Your task to perform on an android device: check android version Image 0: 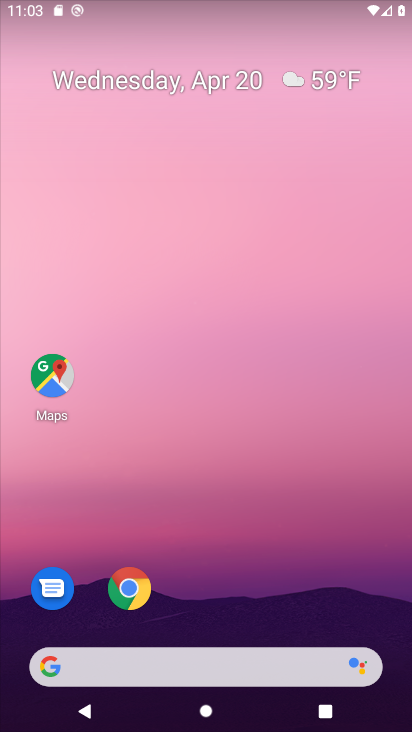
Step 0: drag from (394, 644) to (307, 211)
Your task to perform on an android device: check android version Image 1: 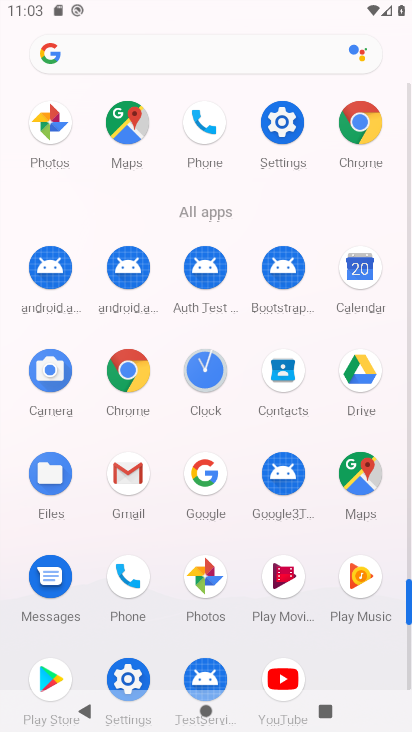
Step 1: click (406, 671)
Your task to perform on an android device: check android version Image 2: 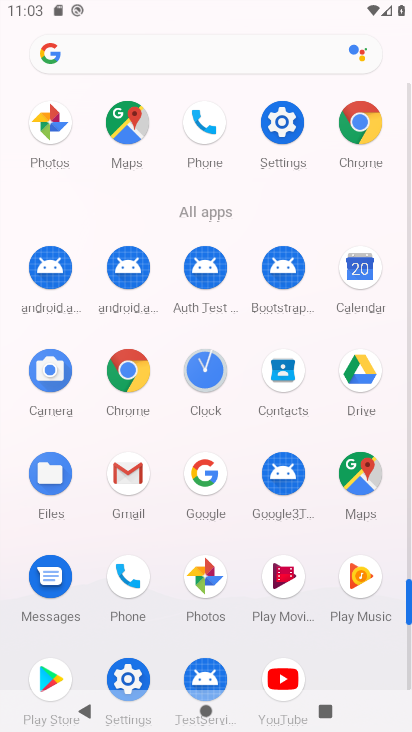
Step 2: click (406, 671)
Your task to perform on an android device: check android version Image 3: 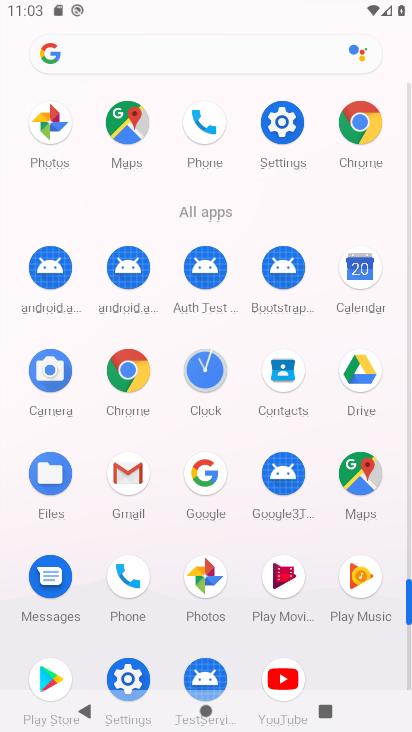
Step 3: click (408, 652)
Your task to perform on an android device: check android version Image 4: 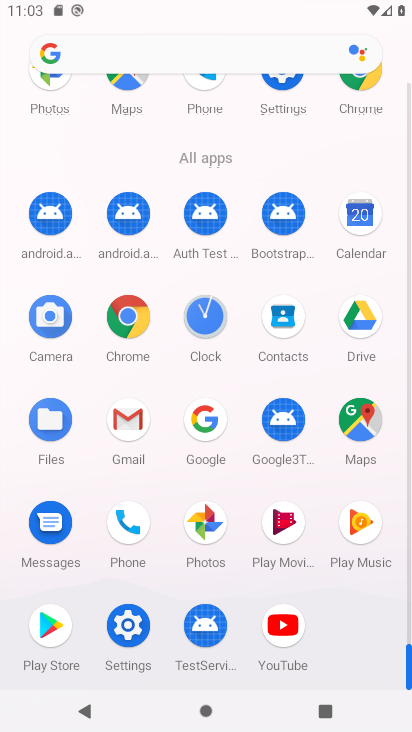
Step 4: click (130, 628)
Your task to perform on an android device: check android version Image 5: 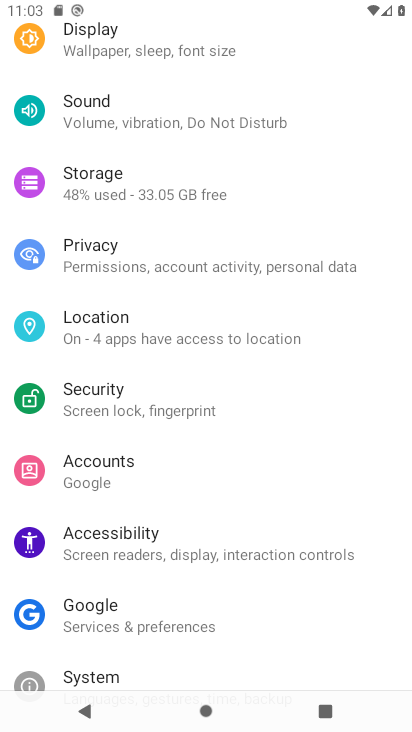
Step 5: drag from (220, 584) to (208, 371)
Your task to perform on an android device: check android version Image 6: 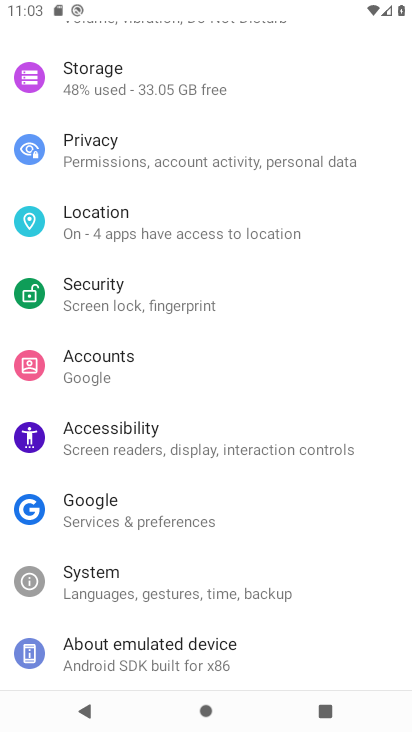
Step 6: drag from (229, 552) to (199, 330)
Your task to perform on an android device: check android version Image 7: 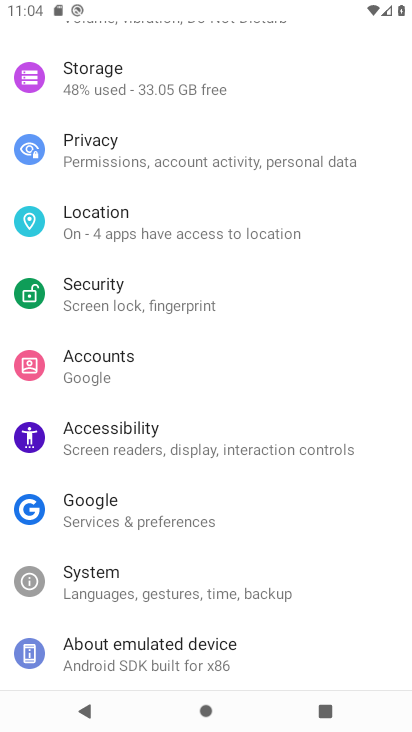
Step 7: click (110, 642)
Your task to perform on an android device: check android version Image 8: 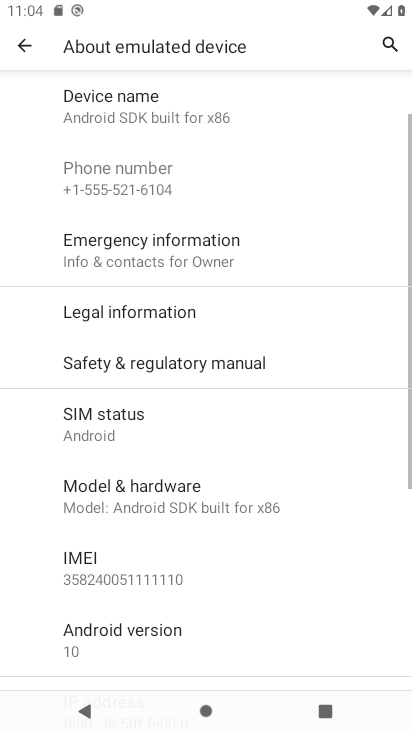
Step 8: click (114, 621)
Your task to perform on an android device: check android version Image 9: 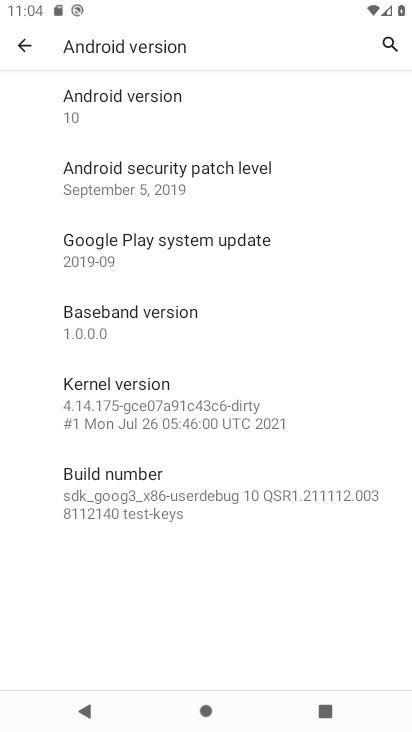
Step 9: task complete